Your task to perform on an android device: Go to battery settings Image 0: 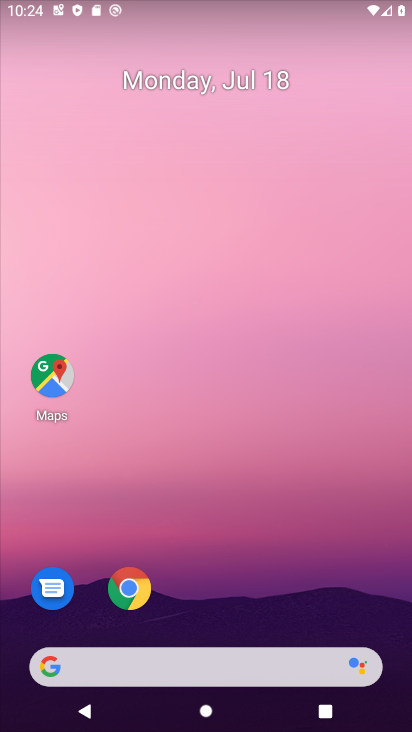
Step 0: drag from (252, 728) to (254, 149)
Your task to perform on an android device: Go to battery settings Image 1: 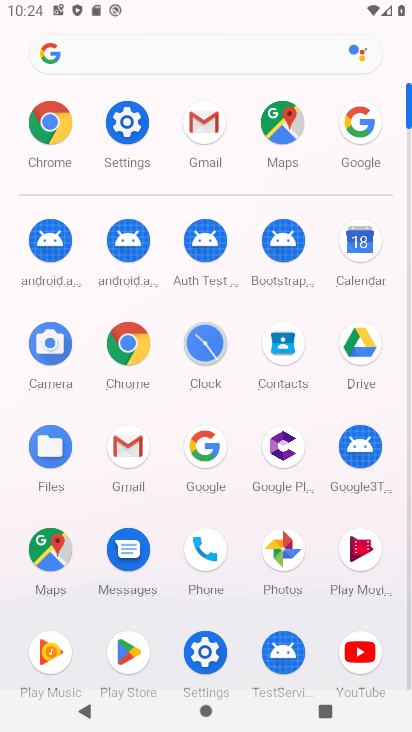
Step 1: click (118, 116)
Your task to perform on an android device: Go to battery settings Image 2: 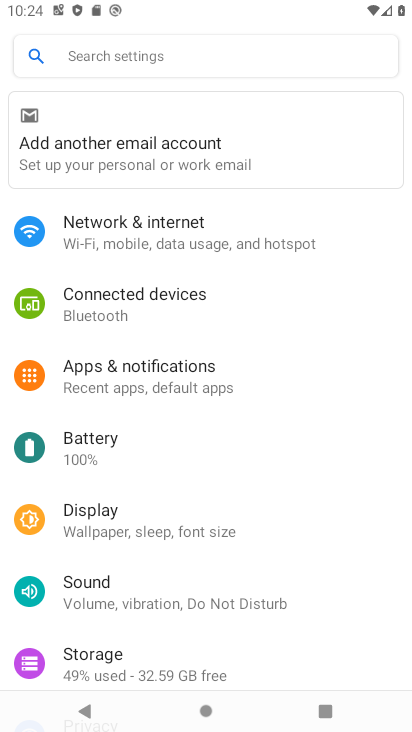
Step 2: click (83, 440)
Your task to perform on an android device: Go to battery settings Image 3: 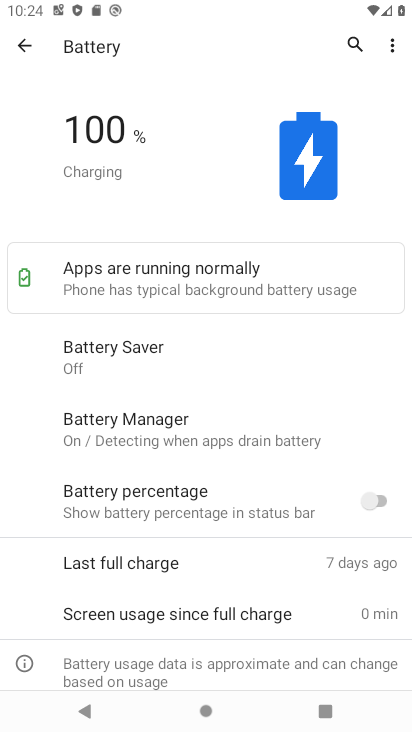
Step 3: task complete